Your task to perform on an android device: Empty the shopping cart on walmart. Add "macbook pro 15 inch" to the cart on walmart Image 0: 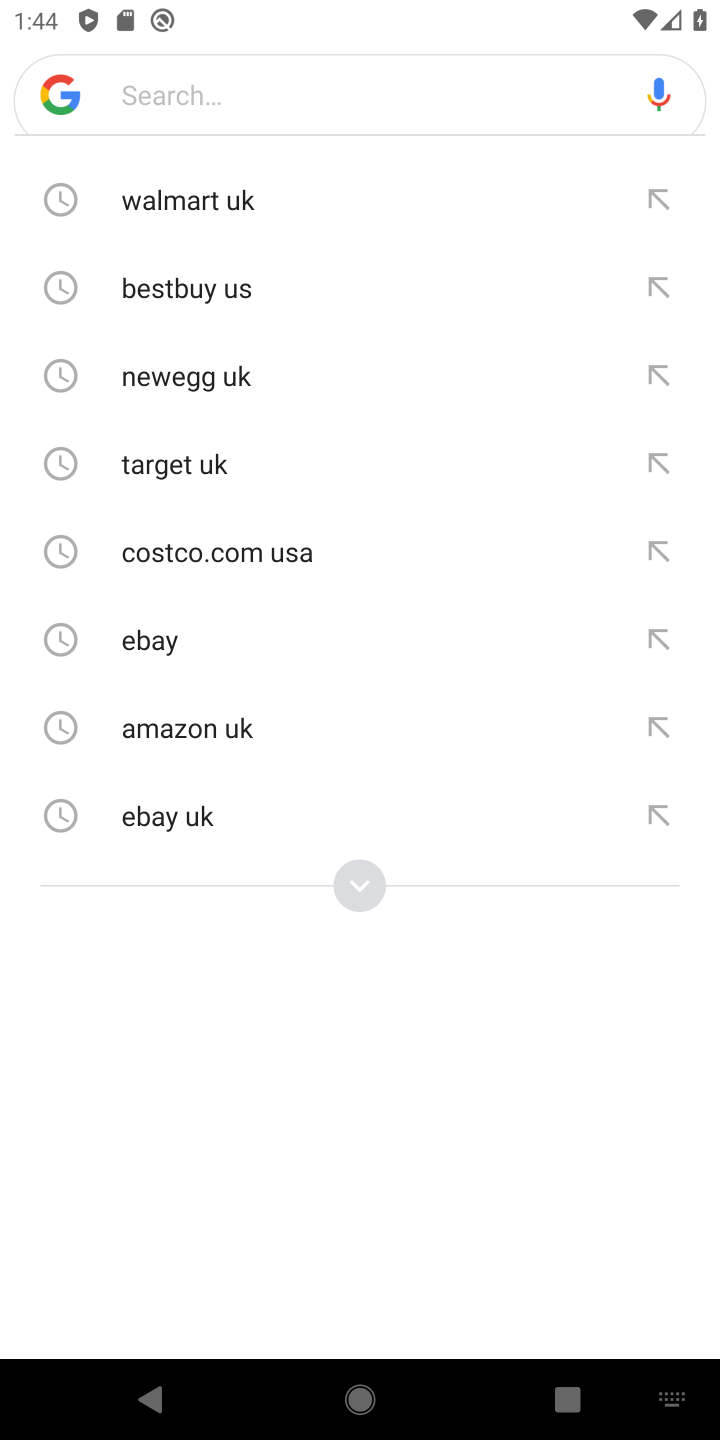
Step 0: click (270, 211)
Your task to perform on an android device: Empty the shopping cart on walmart. Add "macbook pro 15 inch" to the cart on walmart Image 1: 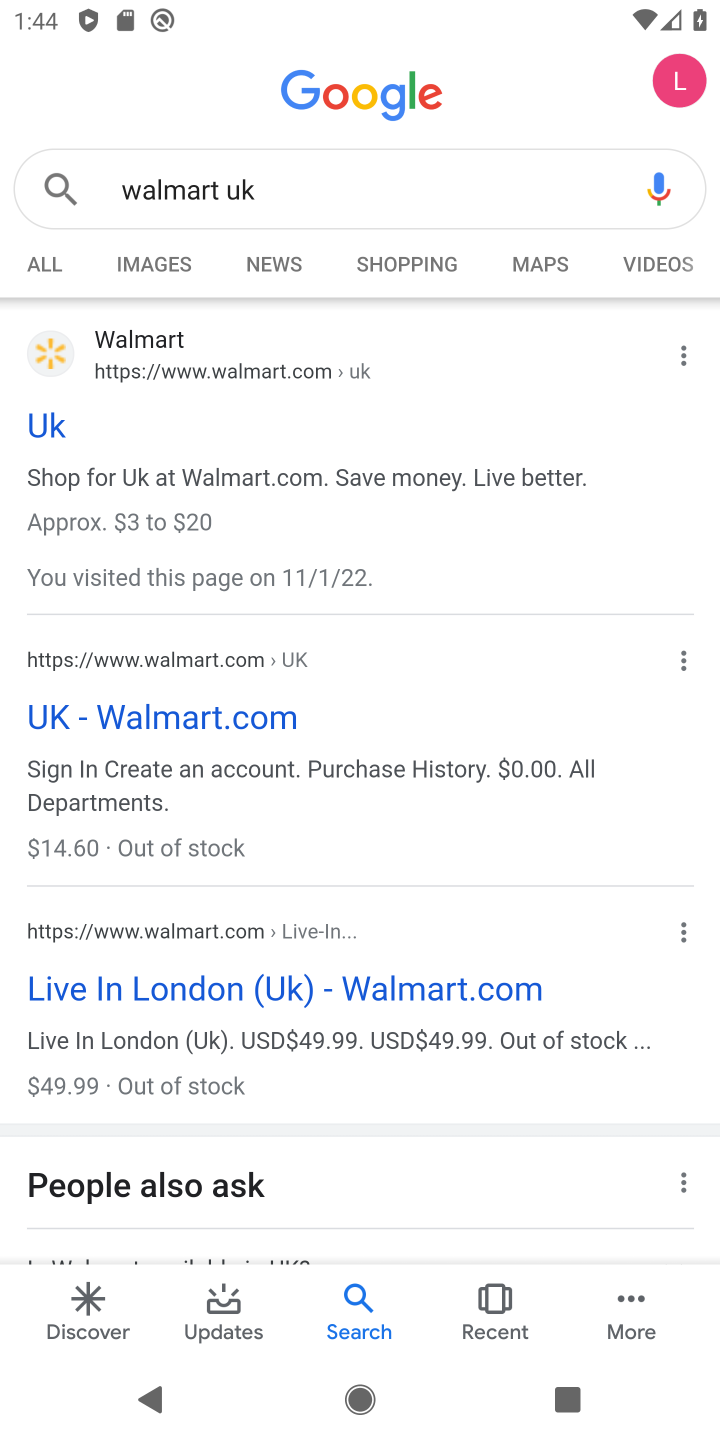
Step 1: click (35, 433)
Your task to perform on an android device: Empty the shopping cart on walmart. Add "macbook pro 15 inch" to the cart on walmart Image 2: 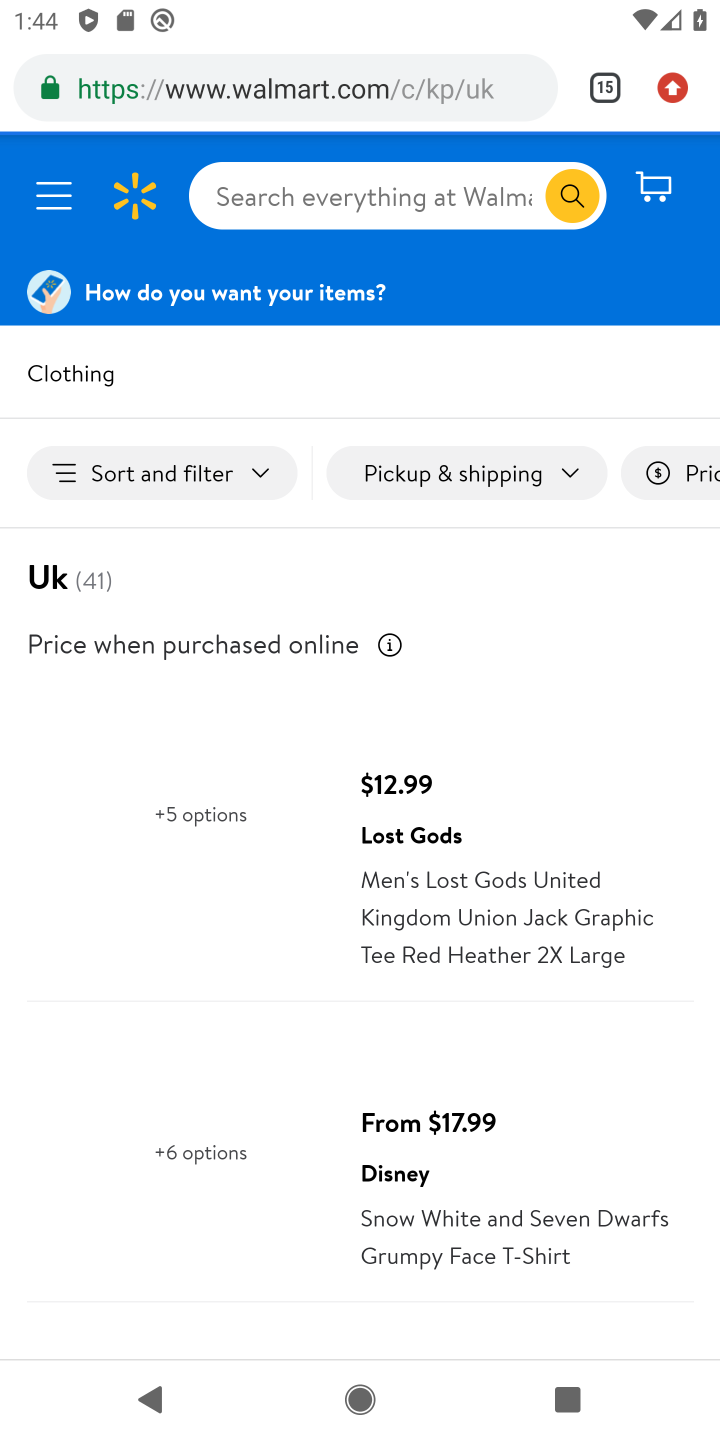
Step 2: click (309, 196)
Your task to perform on an android device: Empty the shopping cart on walmart. Add "macbook pro 15 inch" to the cart on walmart Image 3: 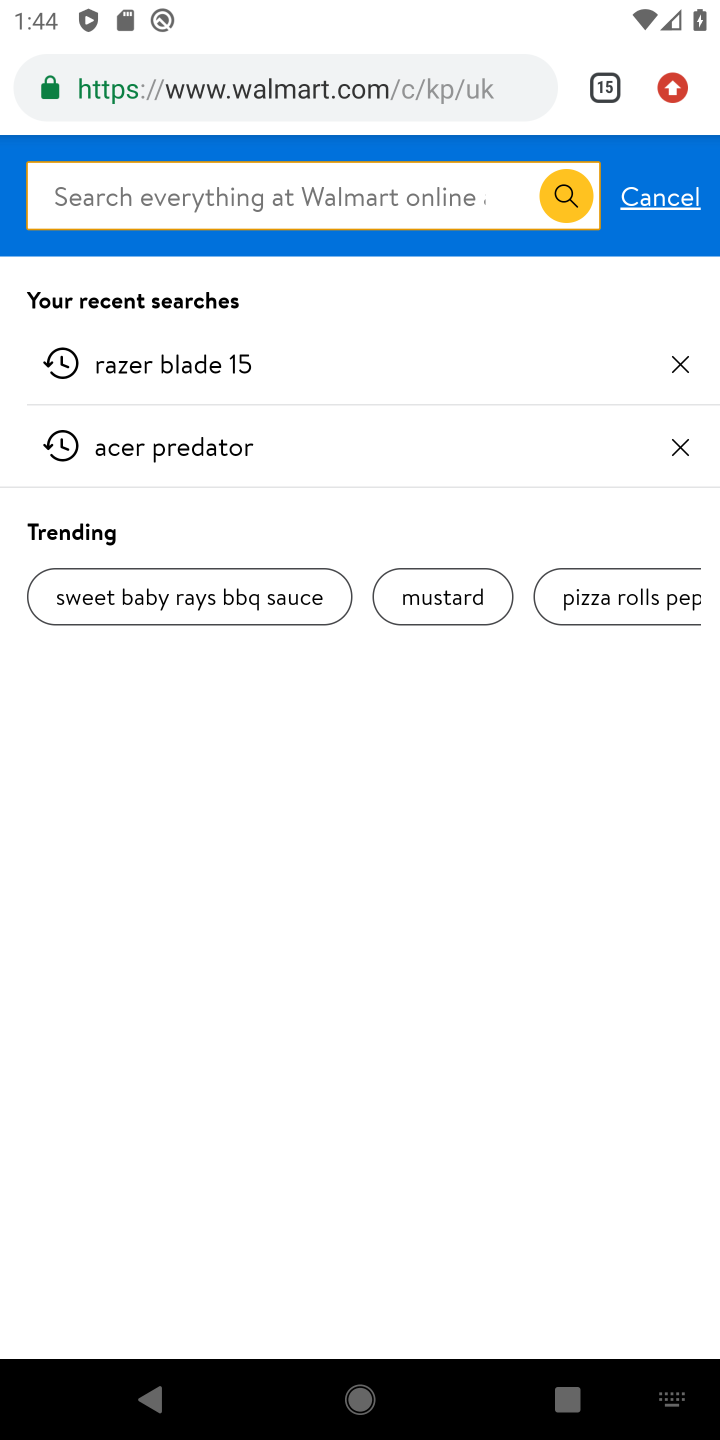
Step 3: type "mac book pro"
Your task to perform on an android device: Empty the shopping cart on walmart. Add "macbook pro 15 inch" to the cart on walmart Image 4: 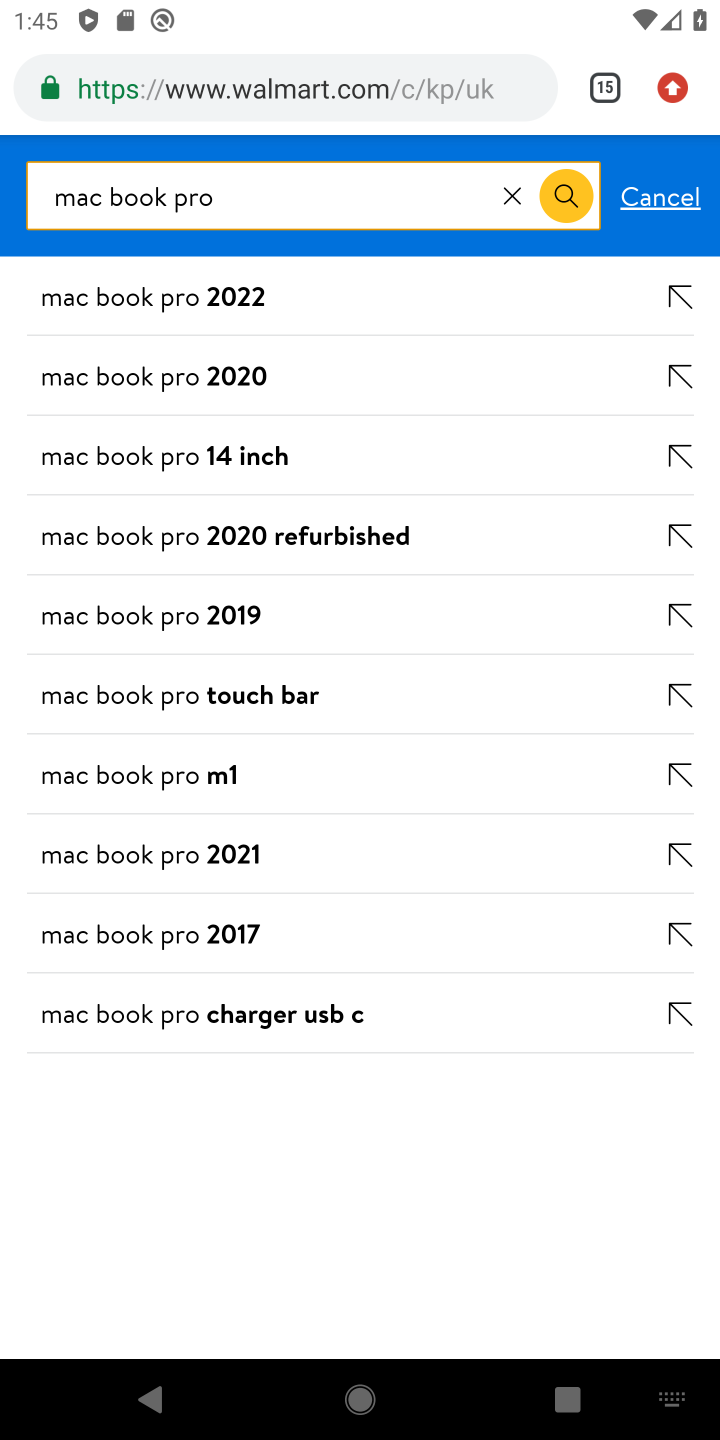
Step 4: click (377, 324)
Your task to perform on an android device: Empty the shopping cart on walmart. Add "macbook pro 15 inch" to the cart on walmart Image 5: 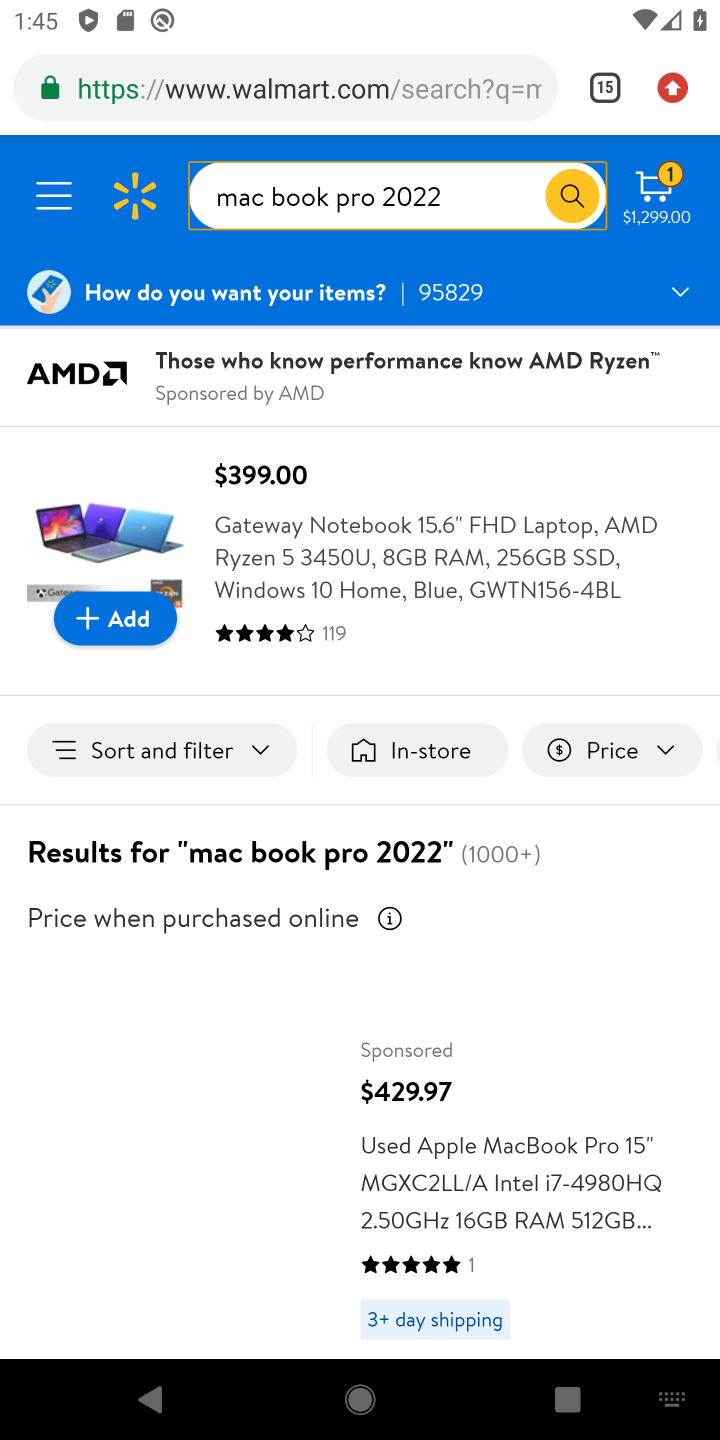
Step 5: click (324, 1116)
Your task to perform on an android device: Empty the shopping cart on walmart. Add "macbook pro 15 inch" to the cart on walmart Image 6: 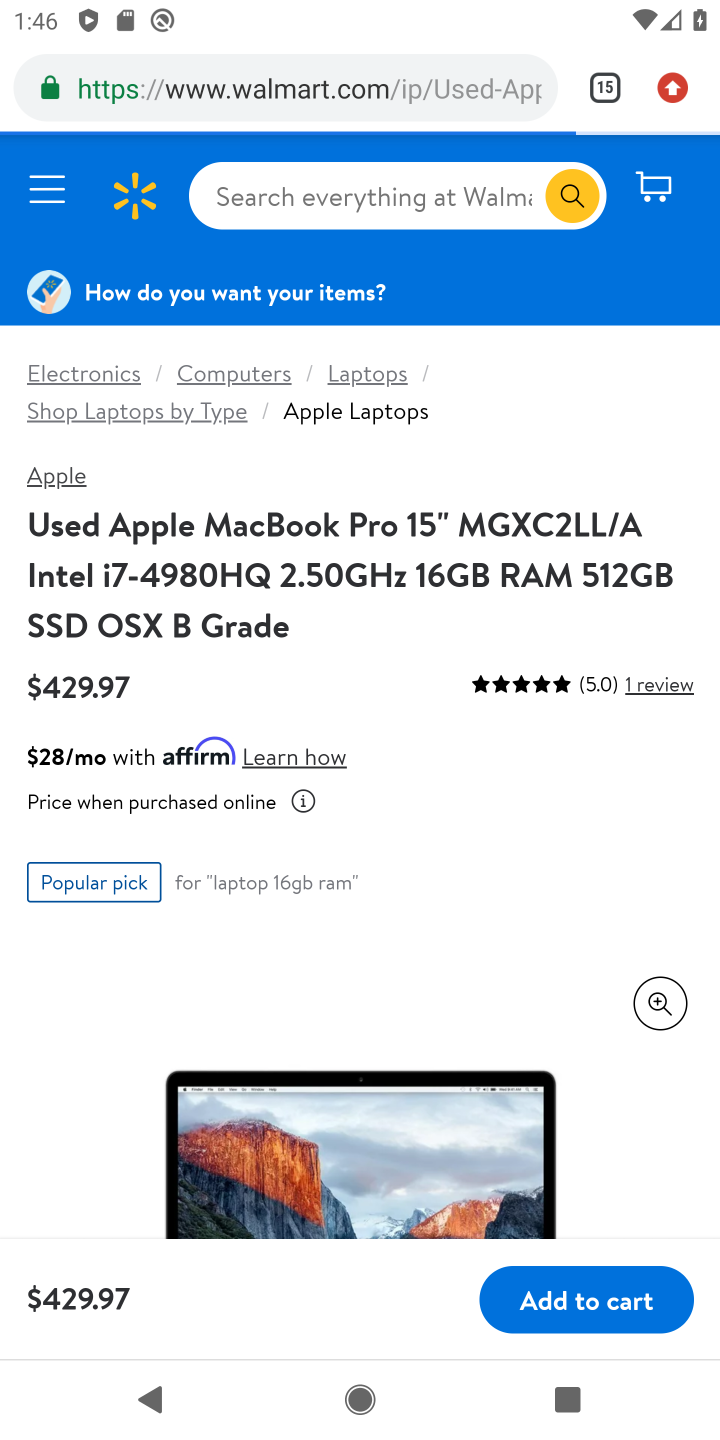
Step 6: click (539, 1321)
Your task to perform on an android device: Empty the shopping cart on walmart. Add "macbook pro 15 inch" to the cart on walmart Image 7: 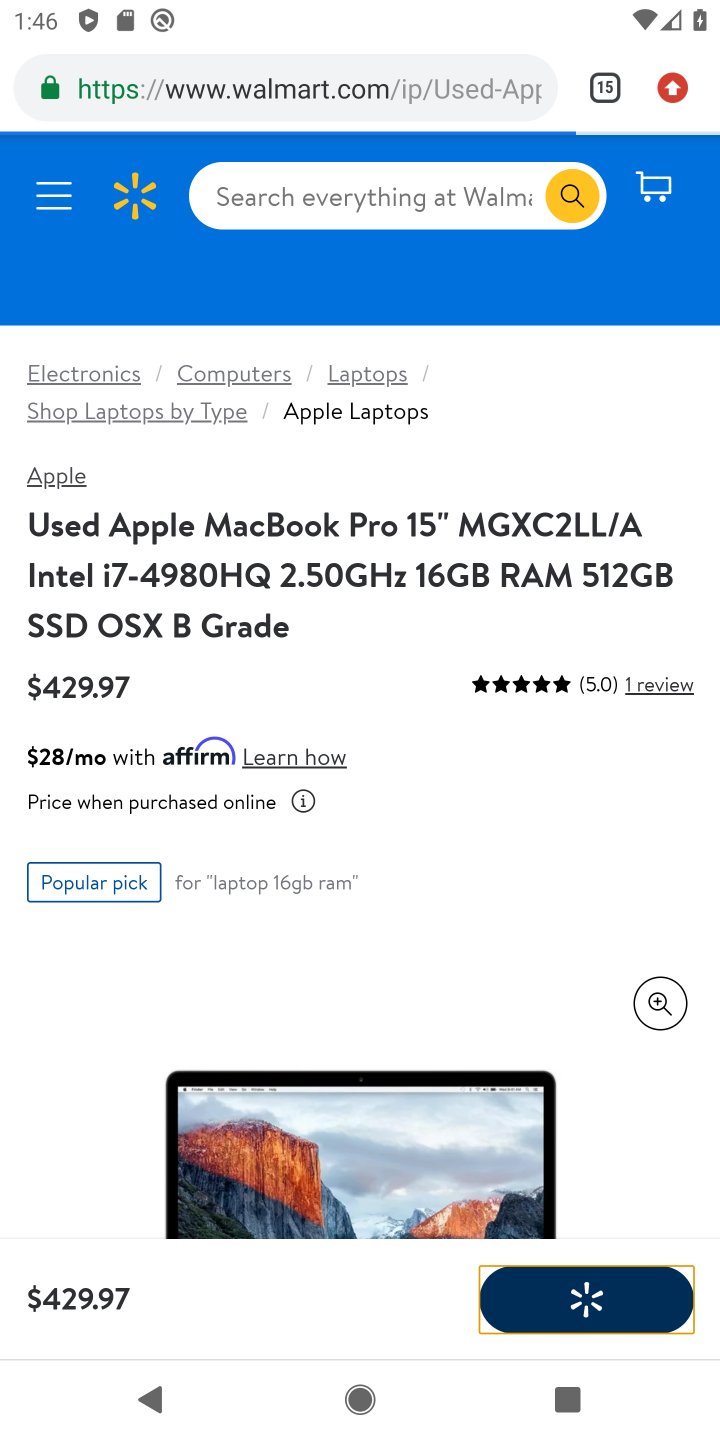
Step 7: task complete